Your task to perform on an android device: Check the news Image 0: 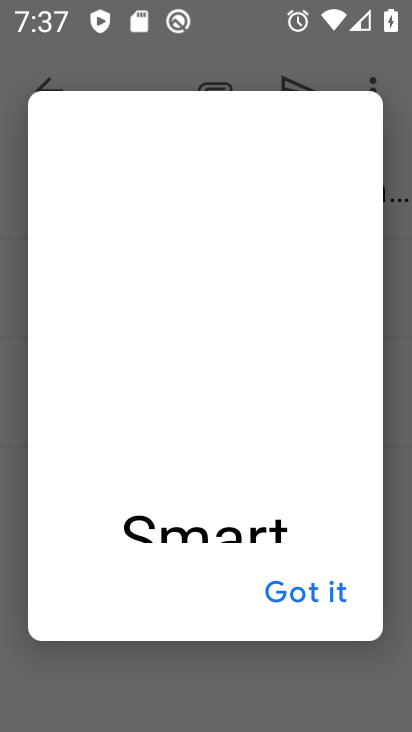
Step 0: press home button
Your task to perform on an android device: Check the news Image 1: 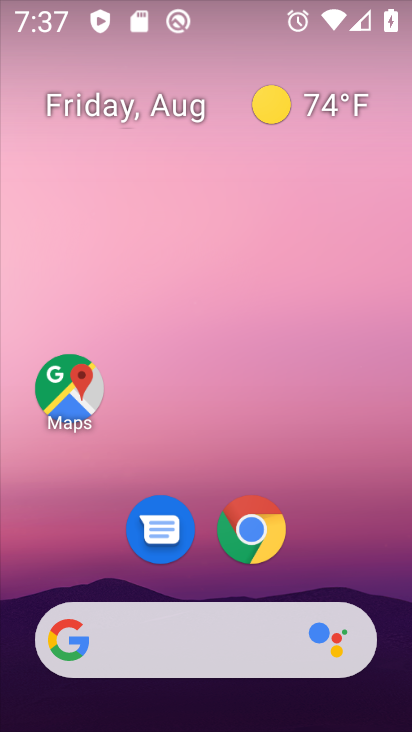
Step 1: drag from (178, 662) to (205, 166)
Your task to perform on an android device: Check the news Image 2: 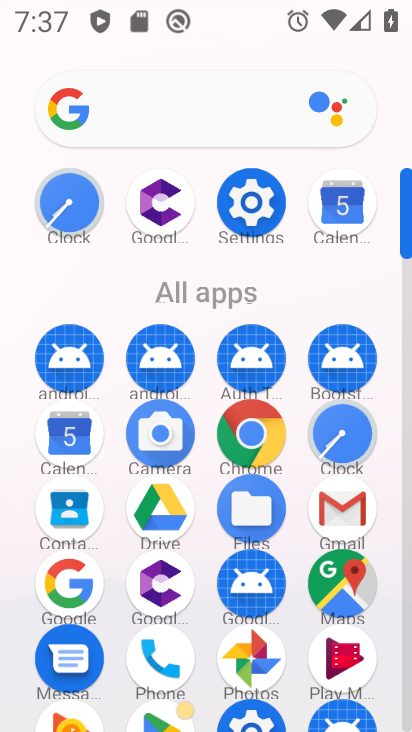
Step 2: click (70, 579)
Your task to perform on an android device: Check the news Image 3: 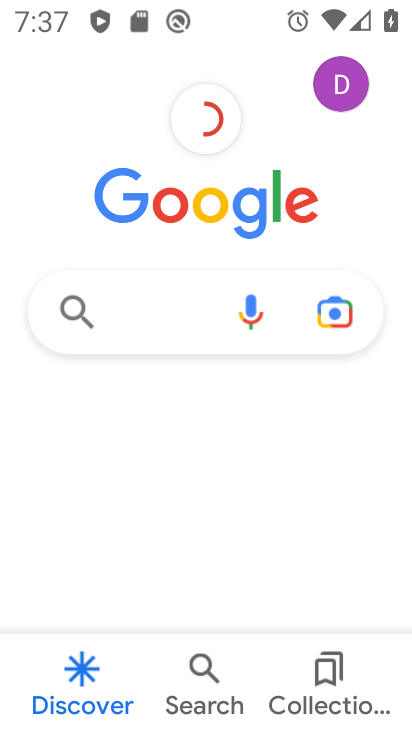
Step 3: click (170, 319)
Your task to perform on an android device: Check the news Image 4: 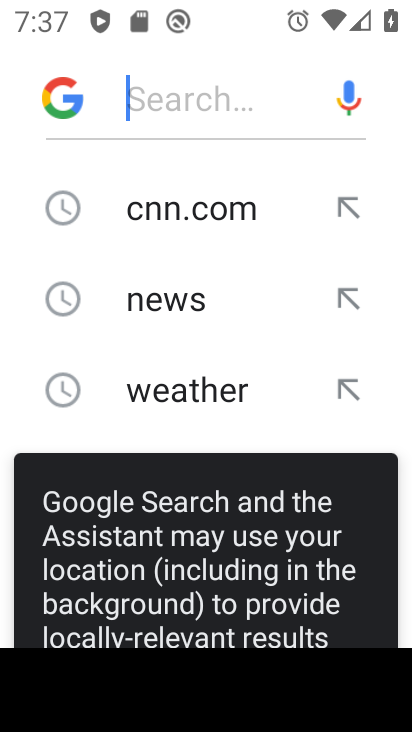
Step 4: click (197, 307)
Your task to perform on an android device: Check the news Image 5: 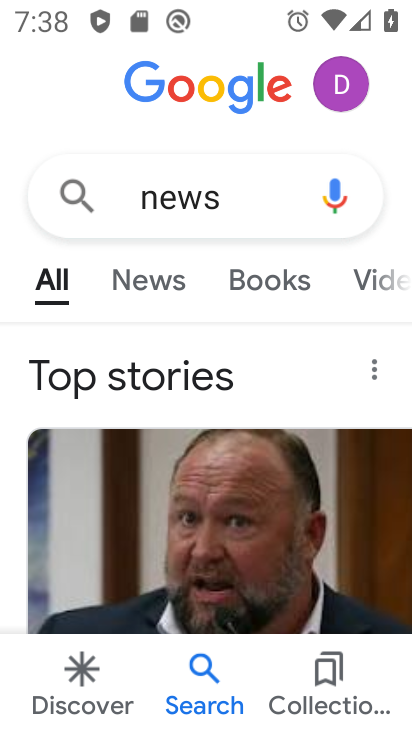
Step 5: drag from (162, 528) to (267, 280)
Your task to perform on an android device: Check the news Image 6: 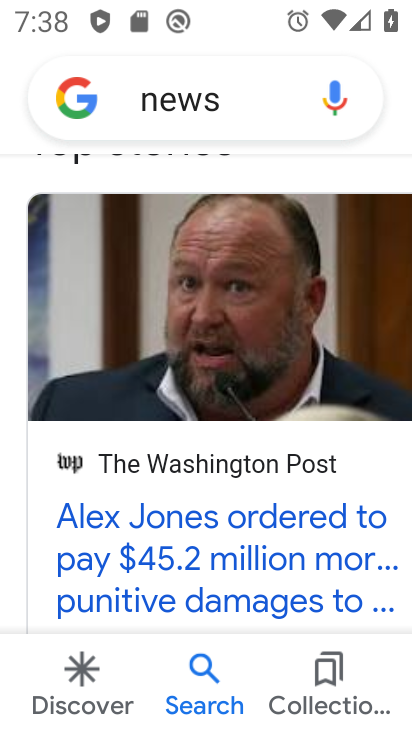
Step 6: drag from (290, 580) to (319, 487)
Your task to perform on an android device: Check the news Image 7: 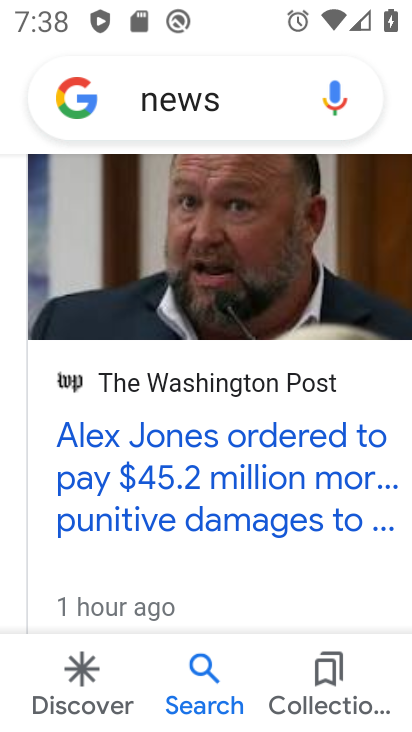
Step 7: click (316, 481)
Your task to perform on an android device: Check the news Image 8: 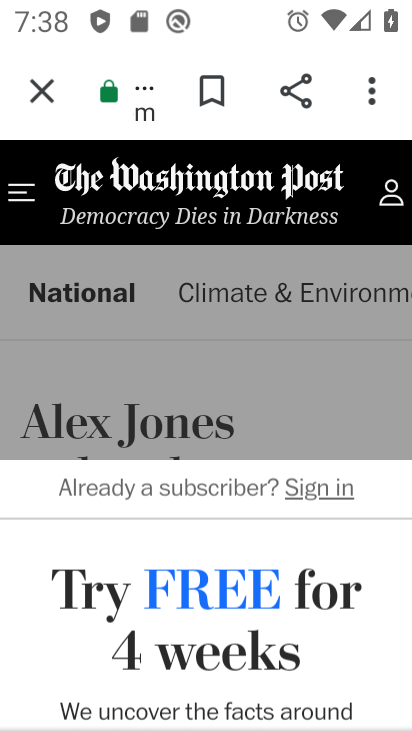
Step 8: task complete